Your task to perform on an android device: Open the phone app and click the voicemail tab. Image 0: 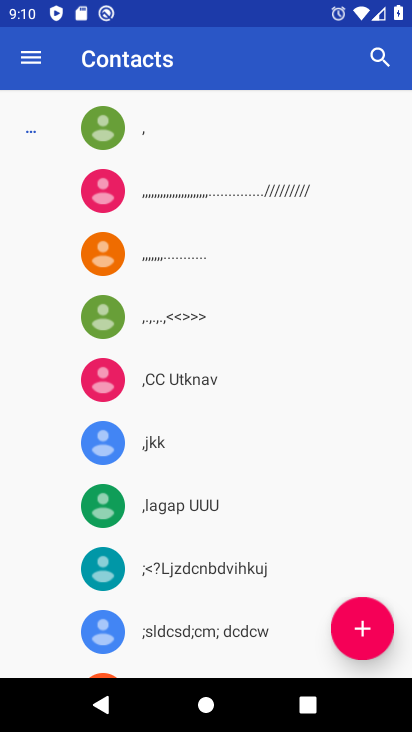
Step 0: press home button
Your task to perform on an android device: Open the phone app and click the voicemail tab. Image 1: 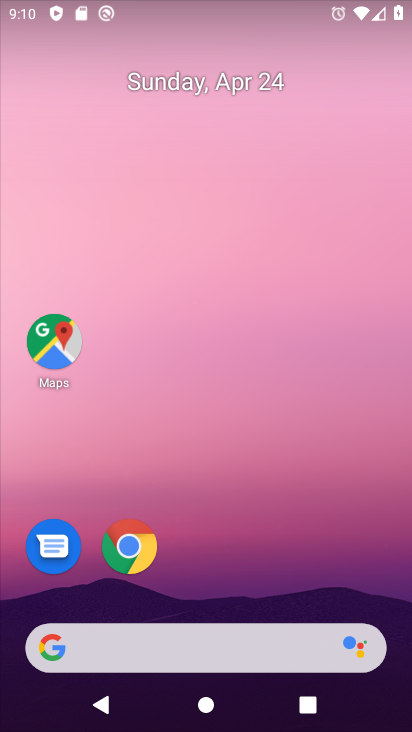
Step 1: drag from (250, 393) to (393, 3)
Your task to perform on an android device: Open the phone app and click the voicemail tab. Image 2: 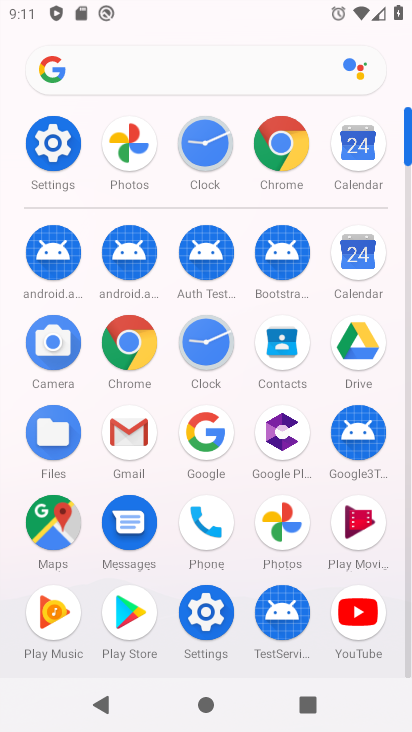
Step 2: drag from (255, 558) to (370, 173)
Your task to perform on an android device: Open the phone app and click the voicemail tab. Image 3: 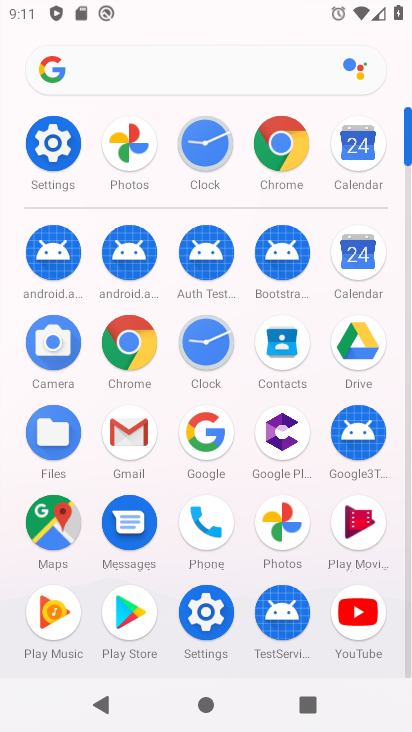
Step 3: click (206, 519)
Your task to perform on an android device: Open the phone app and click the voicemail tab. Image 4: 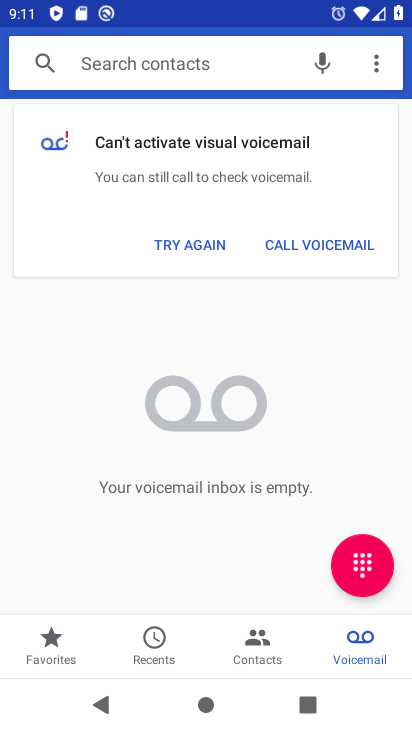
Step 4: click (362, 640)
Your task to perform on an android device: Open the phone app and click the voicemail tab. Image 5: 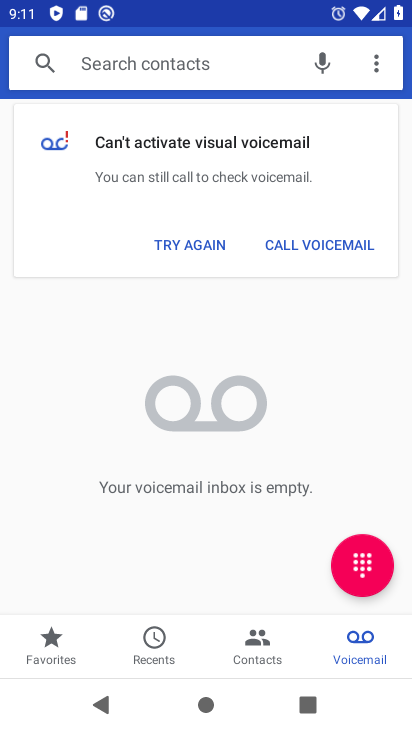
Step 5: task complete